Your task to perform on an android device: check out phone information Image 0: 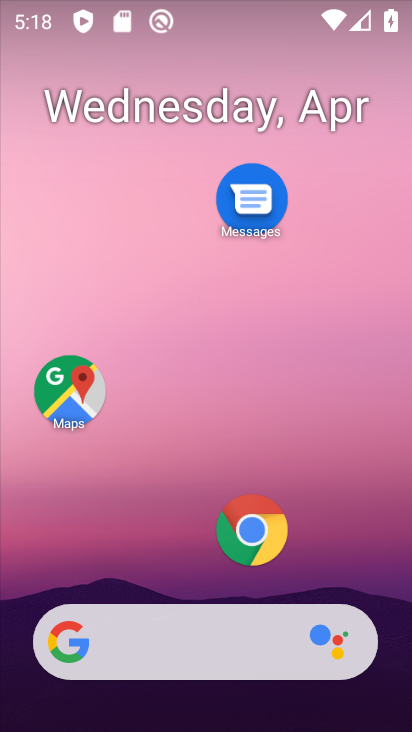
Step 0: drag from (184, 562) to (264, 19)
Your task to perform on an android device: check out phone information Image 1: 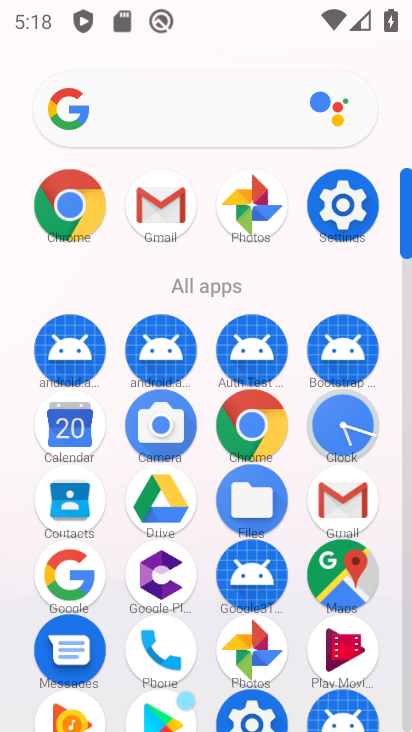
Step 1: click (345, 206)
Your task to perform on an android device: check out phone information Image 2: 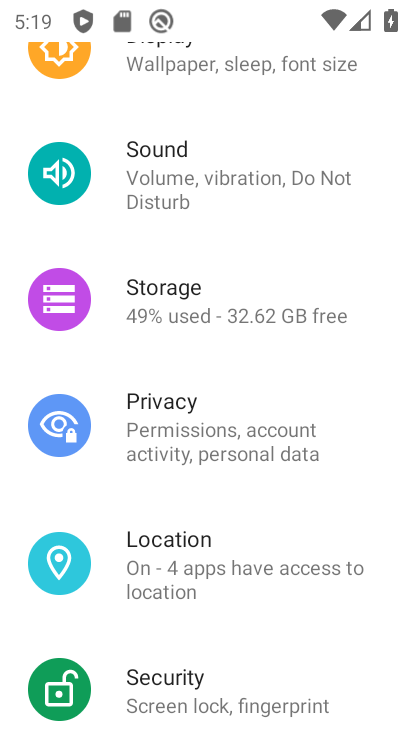
Step 2: drag from (268, 507) to (329, 299)
Your task to perform on an android device: check out phone information Image 3: 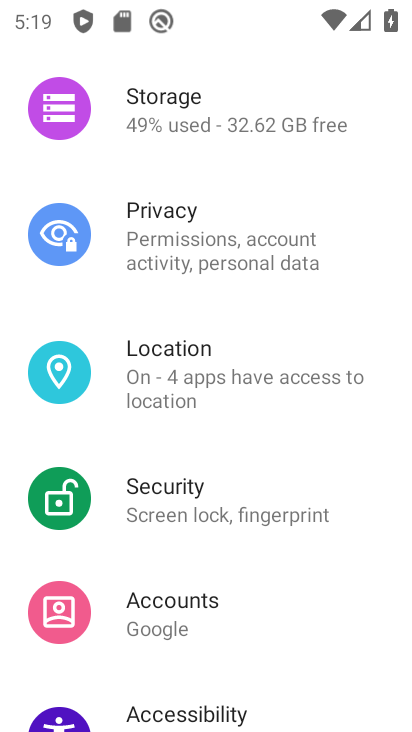
Step 3: drag from (236, 482) to (289, 337)
Your task to perform on an android device: check out phone information Image 4: 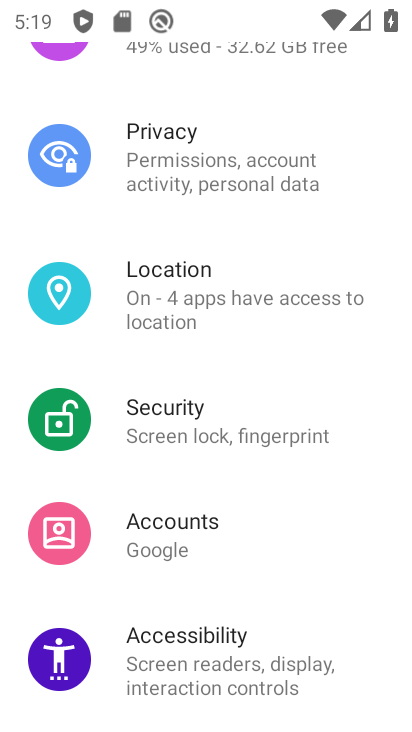
Step 4: drag from (225, 487) to (295, 359)
Your task to perform on an android device: check out phone information Image 5: 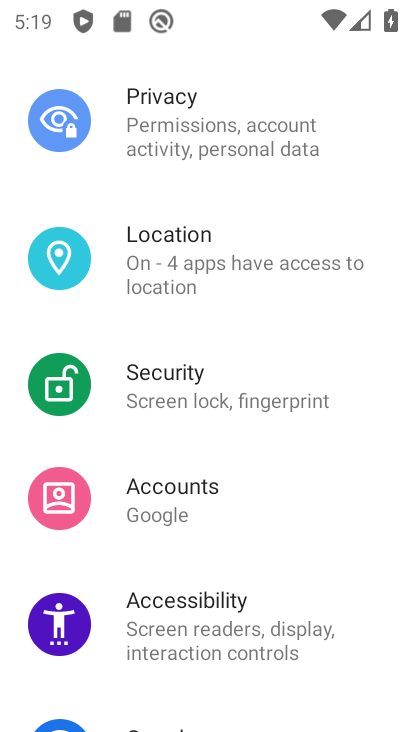
Step 5: drag from (211, 552) to (298, 388)
Your task to perform on an android device: check out phone information Image 6: 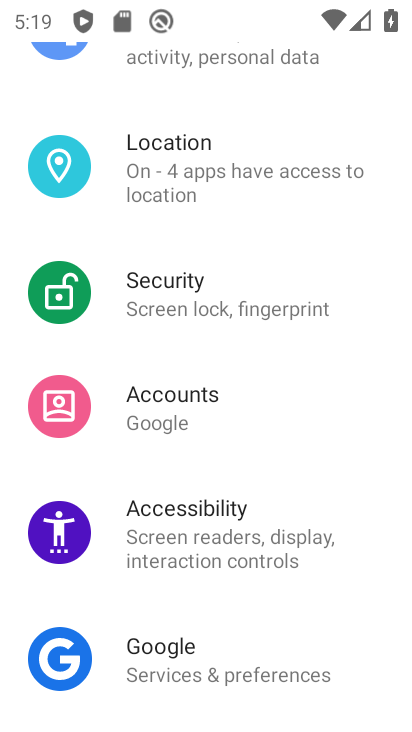
Step 6: drag from (194, 602) to (273, 457)
Your task to perform on an android device: check out phone information Image 7: 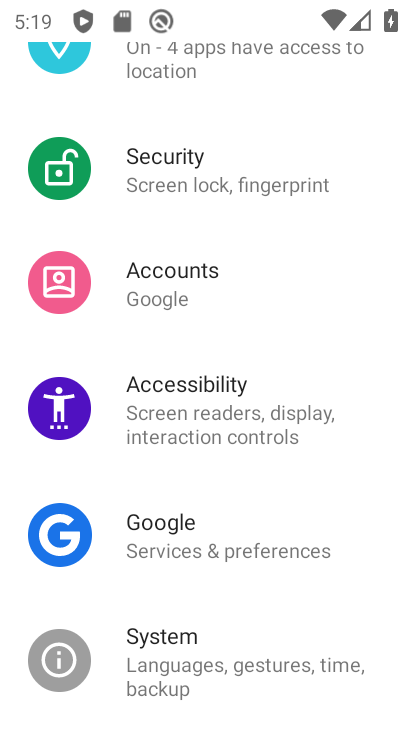
Step 7: drag from (210, 595) to (261, 462)
Your task to perform on an android device: check out phone information Image 8: 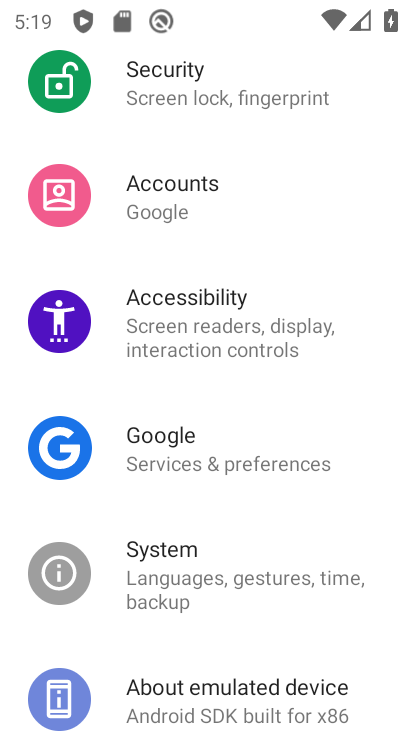
Step 8: drag from (204, 620) to (294, 487)
Your task to perform on an android device: check out phone information Image 9: 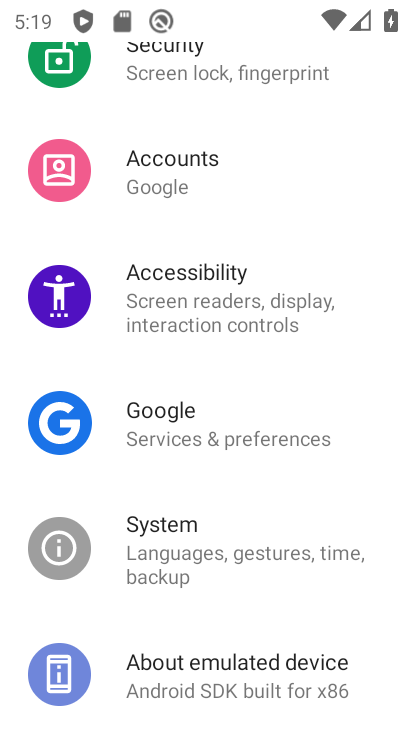
Step 9: click (229, 669)
Your task to perform on an android device: check out phone information Image 10: 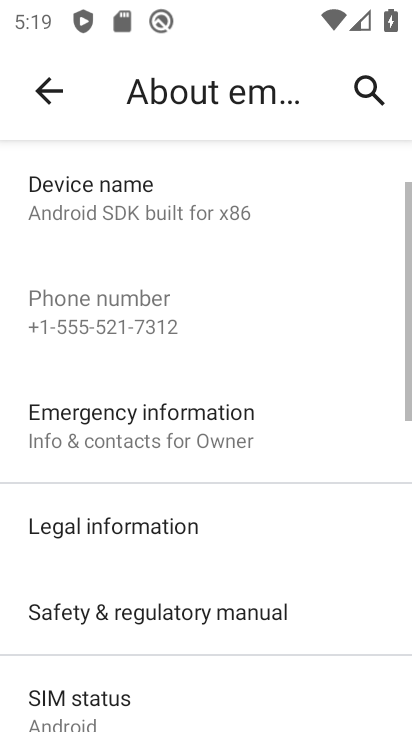
Step 10: task complete